Your task to perform on an android device: Go to battery settings Image 0: 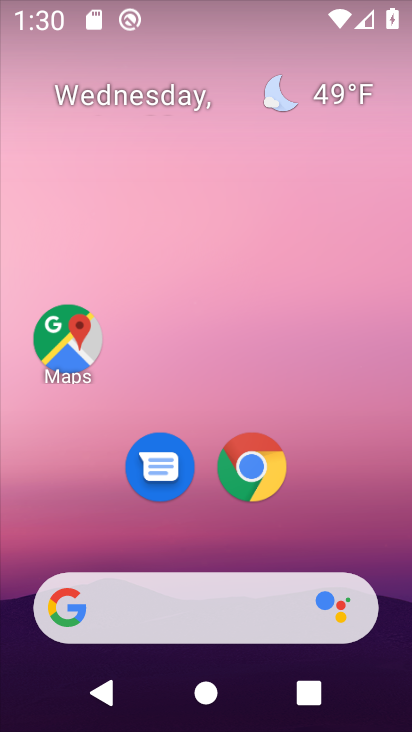
Step 0: drag from (357, 438) to (260, 20)
Your task to perform on an android device: Go to battery settings Image 1: 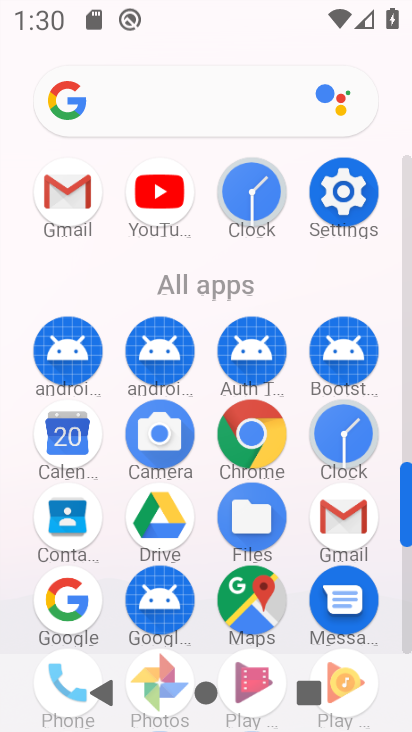
Step 1: click (405, 641)
Your task to perform on an android device: Go to battery settings Image 2: 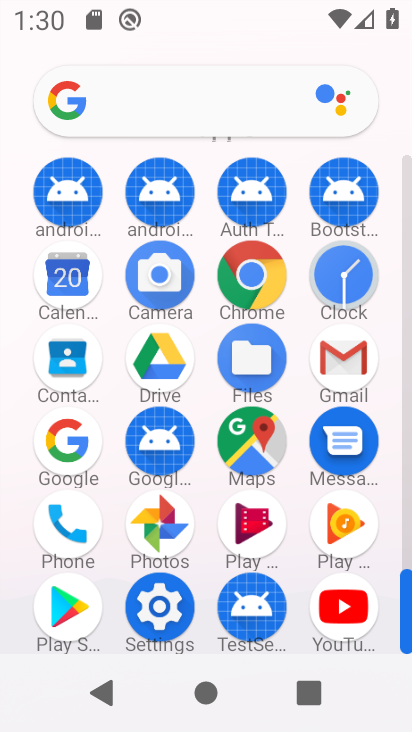
Step 2: click (152, 610)
Your task to perform on an android device: Go to battery settings Image 3: 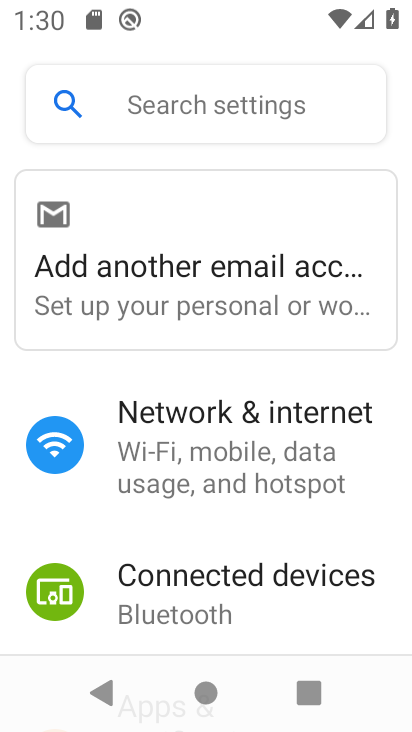
Step 3: drag from (324, 610) to (283, 253)
Your task to perform on an android device: Go to battery settings Image 4: 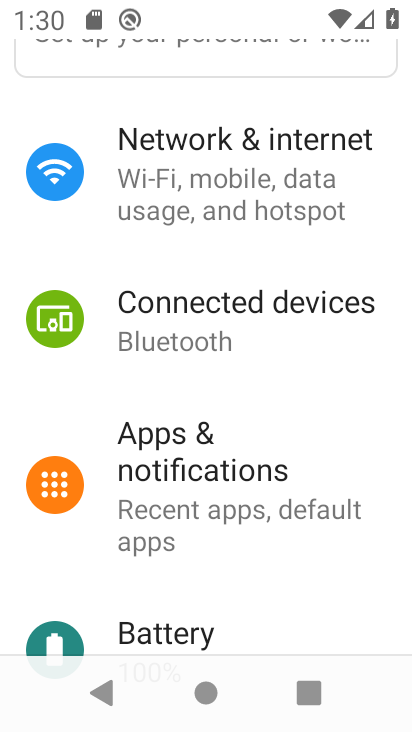
Step 4: drag from (222, 597) to (229, 272)
Your task to perform on an android device: Go to battery settings Image 5: 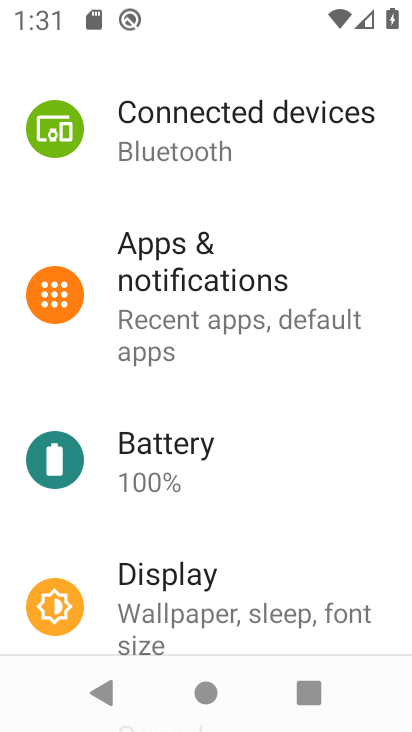
Step 5: click (151, 446)
Your task to perform on an android device: Go to battery settings Image 6: 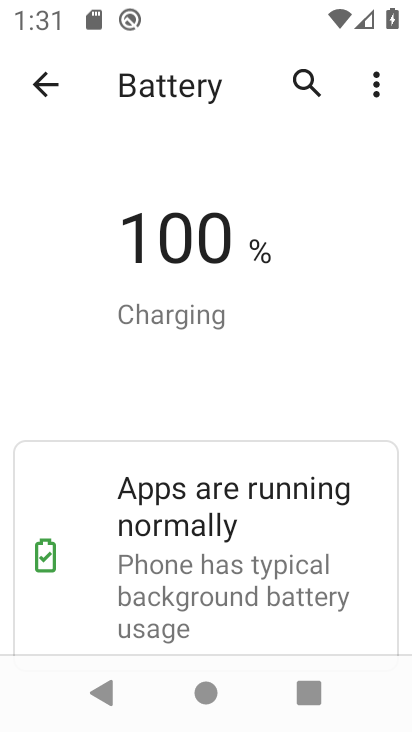
Step 6: task complete